Your task to perform on an android device: Go to Google maps Image 0: 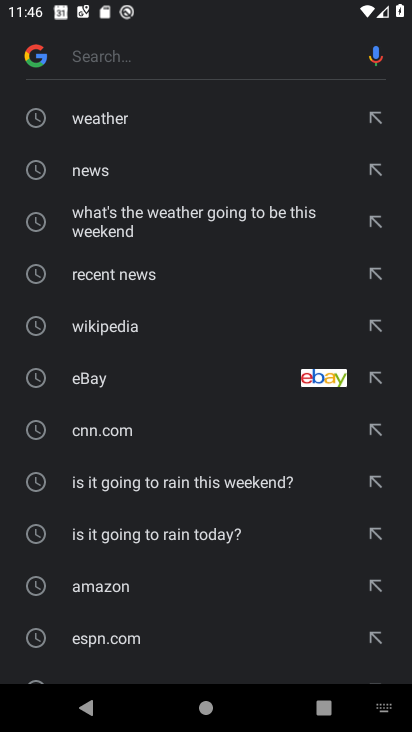
Step 0: press home button
Your task to perform on an android device: Go to Google maps Image 1: 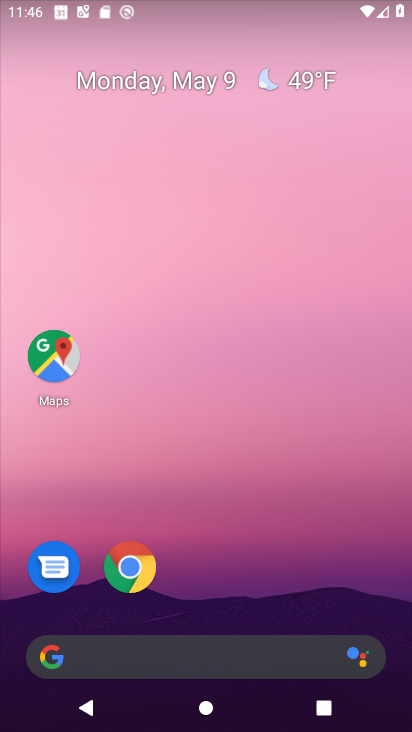
Step 1: drag from (126, 553) to (110, 242)
Your task to perform on an android device: Go to Google maps Image 2: 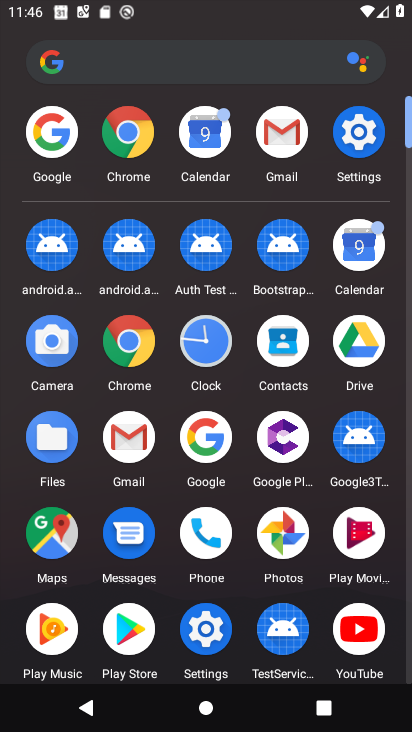
Step 2: click (57, 138)
Your task to perform on an android device: Go to Google maps Image 3: 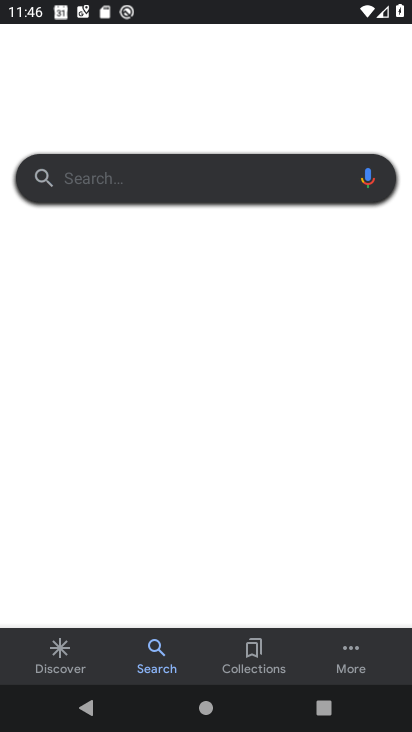
Step 3: task complete